Your task to perform on an android device: change text size in settings app Image 0: 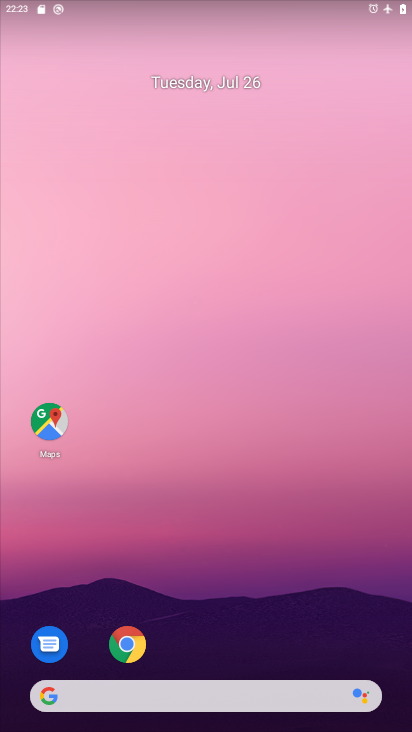
Step 0: drag from (206, 386) to (216, 182)
Your task to perform on an android device: change text size in settings app Image 1: 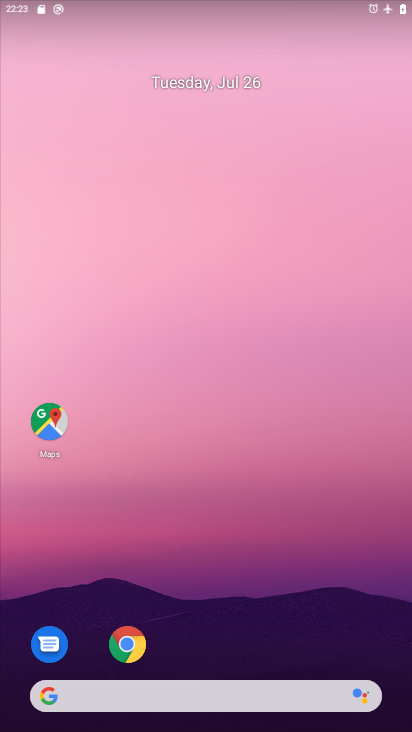
Step 1: drag from (165, 690) to (292, 215)
Your task to perform on an android device: change text size in settings app Image 2: 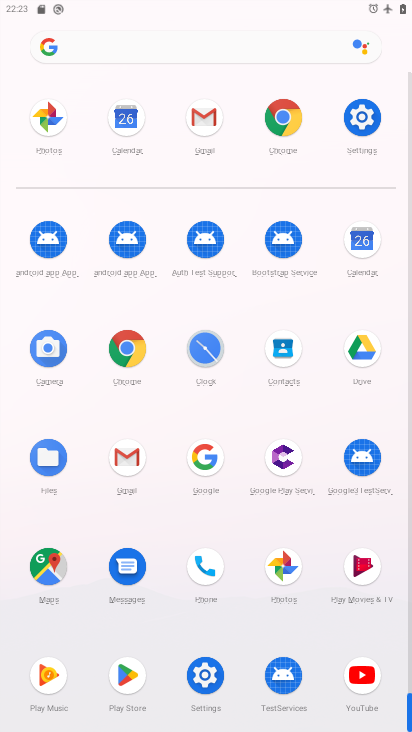
Step 2: click (365, 125)
Your task to perform on an android device: change text size in settings app Image 3: 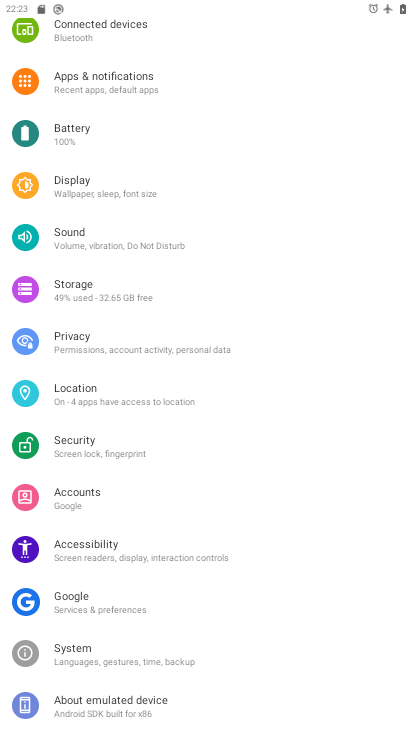
Step 3: click (121, 549)
Your task to perform on an android device: change text size in settings app Image 4: 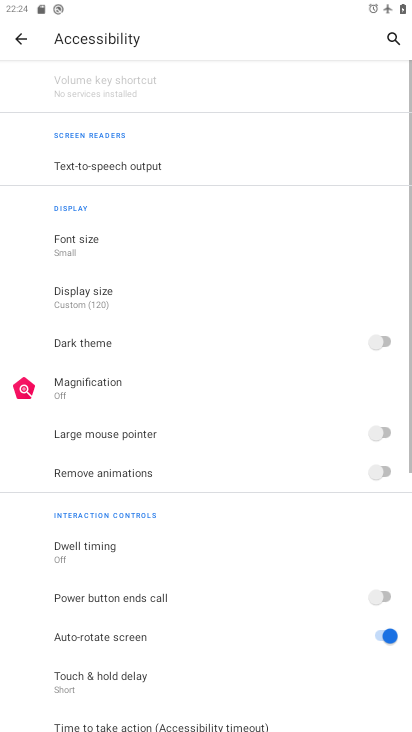
Step 4: click (116, 233)
Your task to perform on an android device: change text size in settings app Image 5: 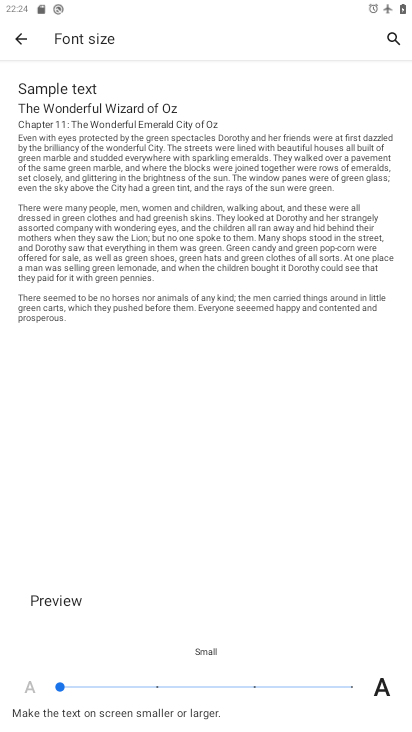
Step 5: click (240, 670)
Your task to perform on an android device: change text size in settings app Image 6: 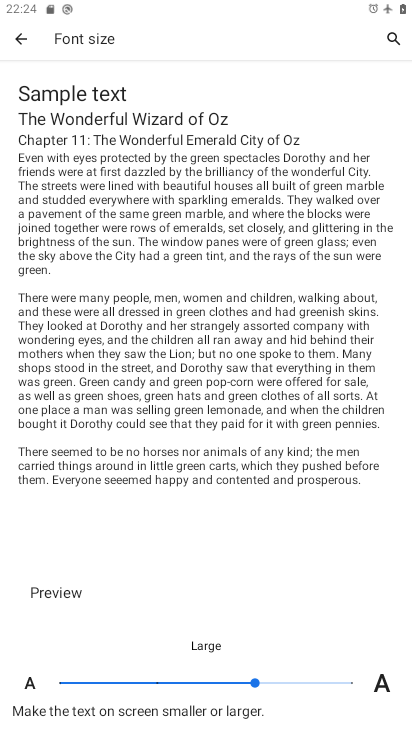
Step 6: task complete